Your task to perform on an android device: turn on the 24-hour format for clock Image 0: 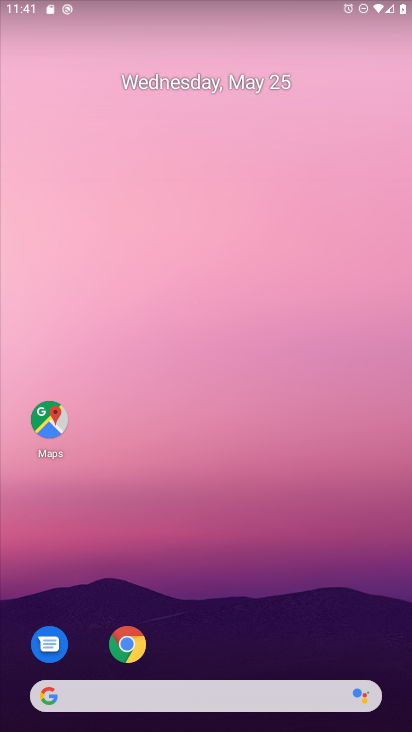
Step 0: drag from (215, 645) to (257, 4)
Your task to perform on an android device: turn on the 24-hour format for clock Image 1: 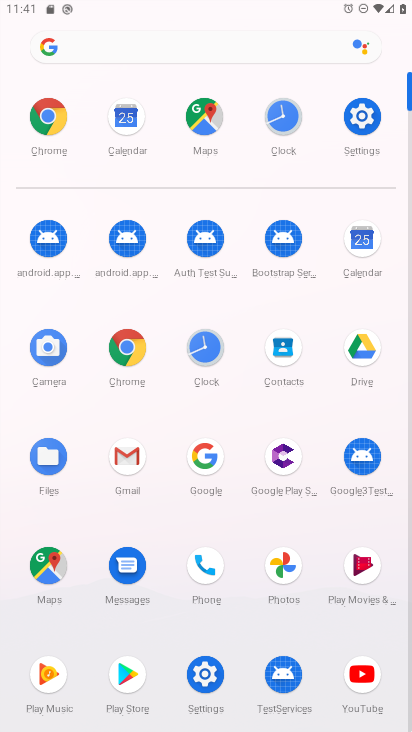
Step 1: click (281, 107)
Your task to perform on an android device: turn on the 24-hour format for clock Image 2: 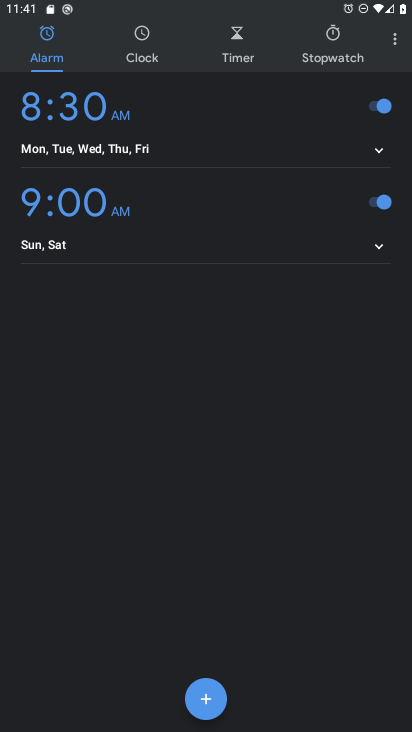
Step 2: click (393, 37)
Your task to perform on an android device: turn on the 24-hour format for clock Image 3: 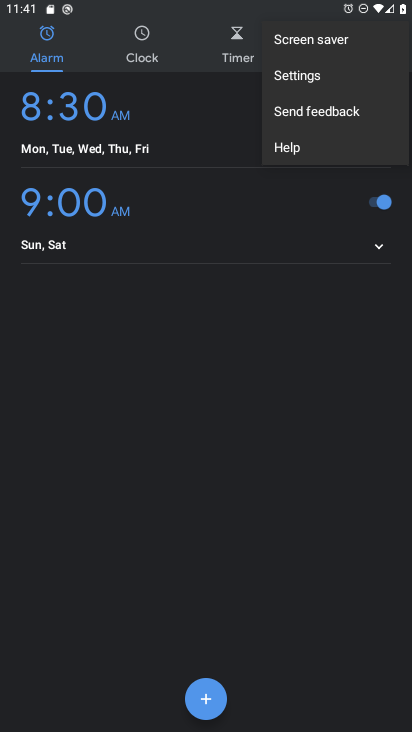
Step 3: click (330, 74)
Your task to perform on an android device: turn on the 24-hour format for clock Image 4: 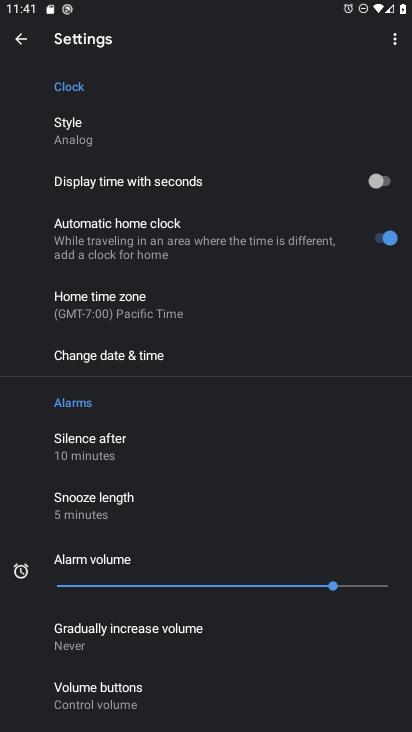
Step 4: click (192, 360)
Your task to perform on an android device: turn on the 24-hour format for clock Image 5: 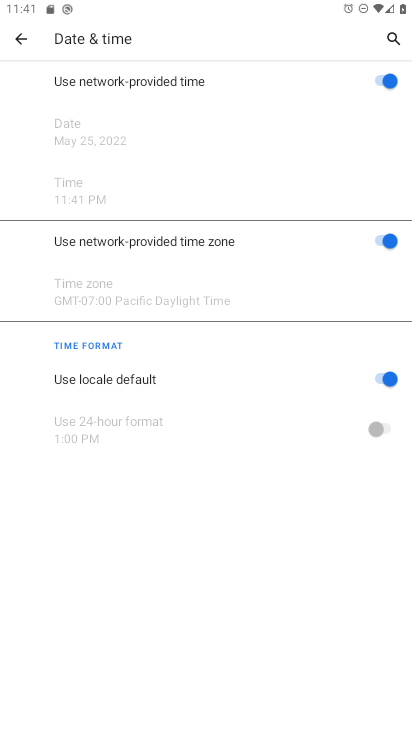
Step 5: click (379, 367)
Your task to perform on an android device: turn on the 24-hour format for clock Image 6: 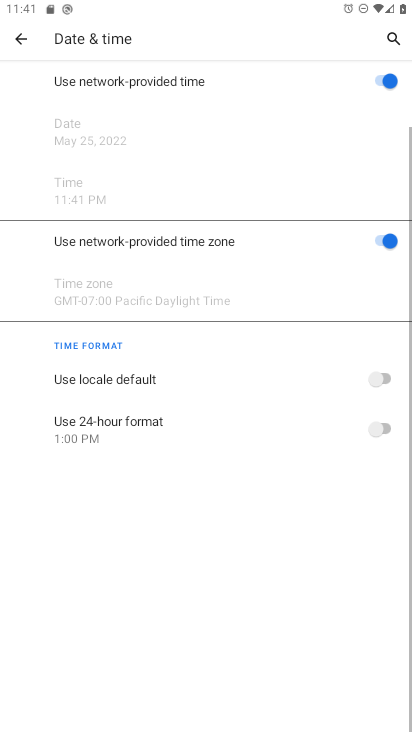
Step 6: click (382, 422)
Your task to perform on an android device: turn on the 24-hour format for clock Image 7: 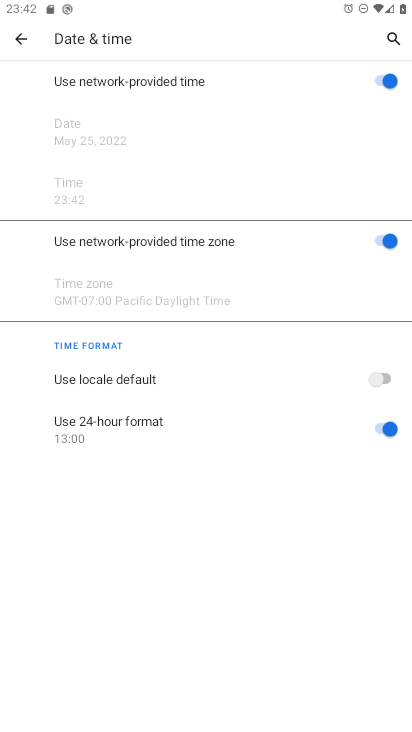
Step 7: task complete